Your task to perform on an android device: turn on wifi Image 0: 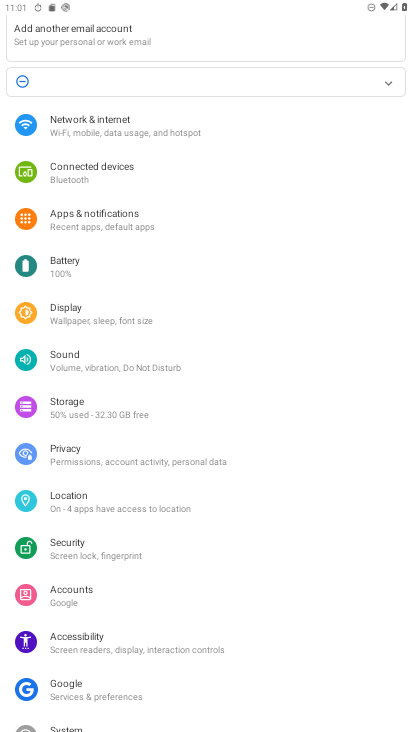
Step 0: click (146, 131)
Your task to perform on an android device: turn on wifi Image 1: 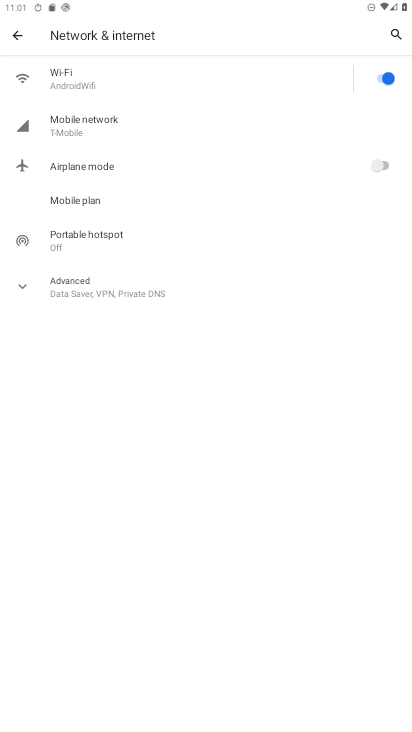
Step 1: click (60, 74)
Your task to perform on an android device: turn on wifi Image 2: 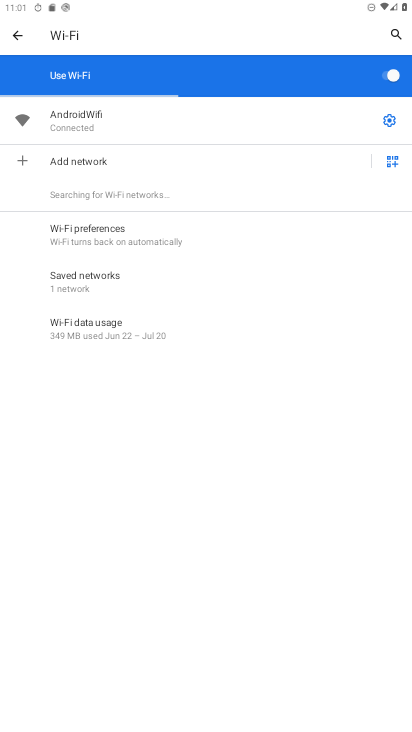
Step 2: task complete